Your task to perform on an android device: turn on sleep mode Image 0: 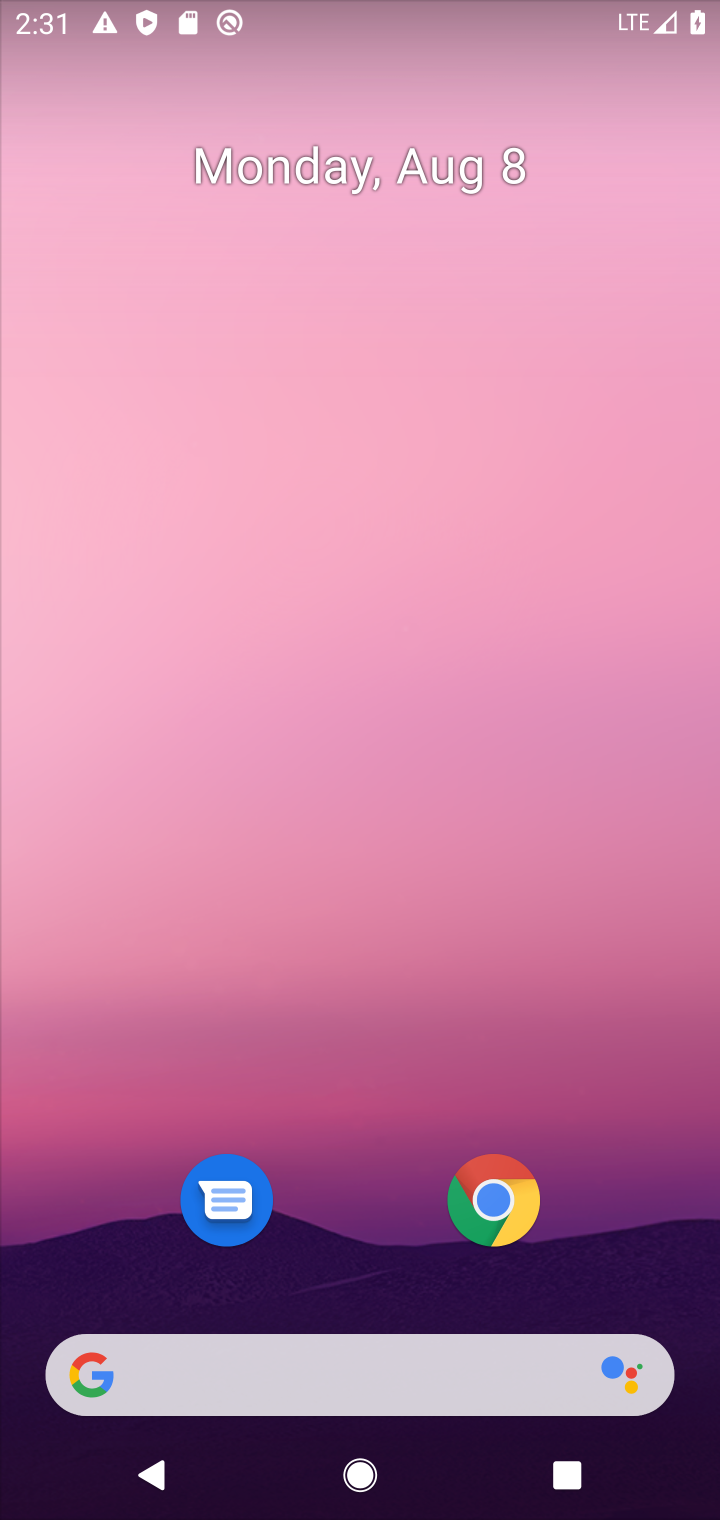
Step 0: drag from (389, 931) to (498, 241)
Your task to perform on an android device: turn on sleep mode Image 1: 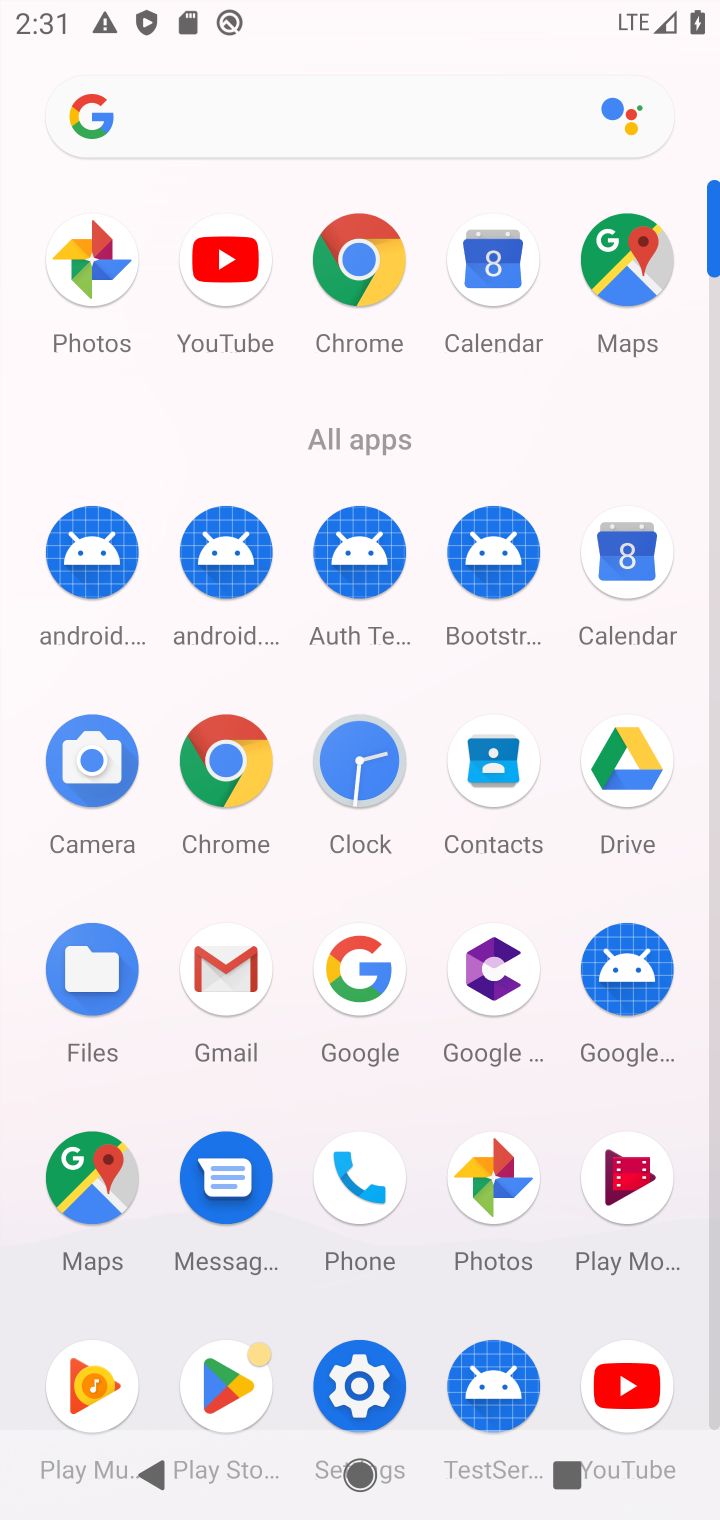
Step 1: click (367, 1348)
Your task to perform on an android device: turn on sleep mode Image 2: 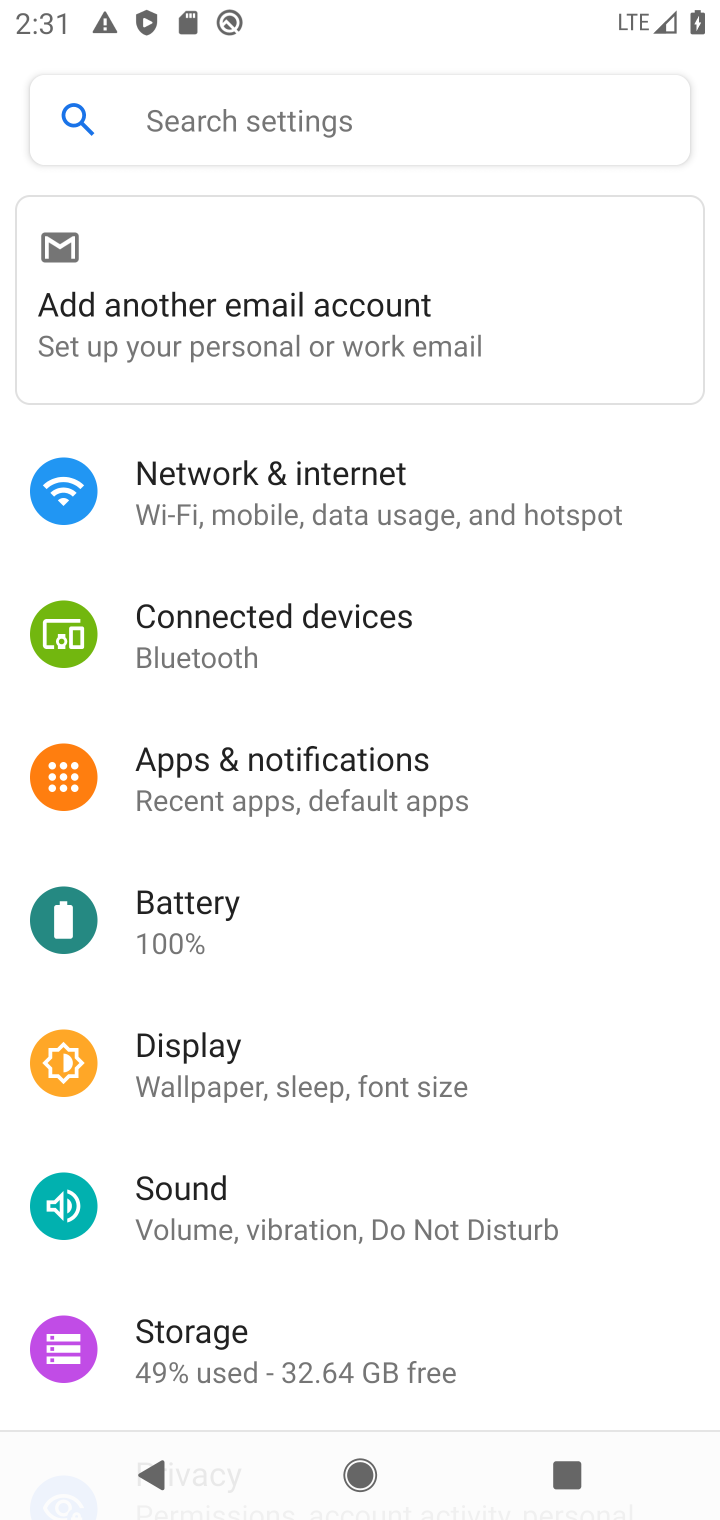
Step 2: click (288, 100)
Your task to perform on an android device: turn on sleep mode Image 3: 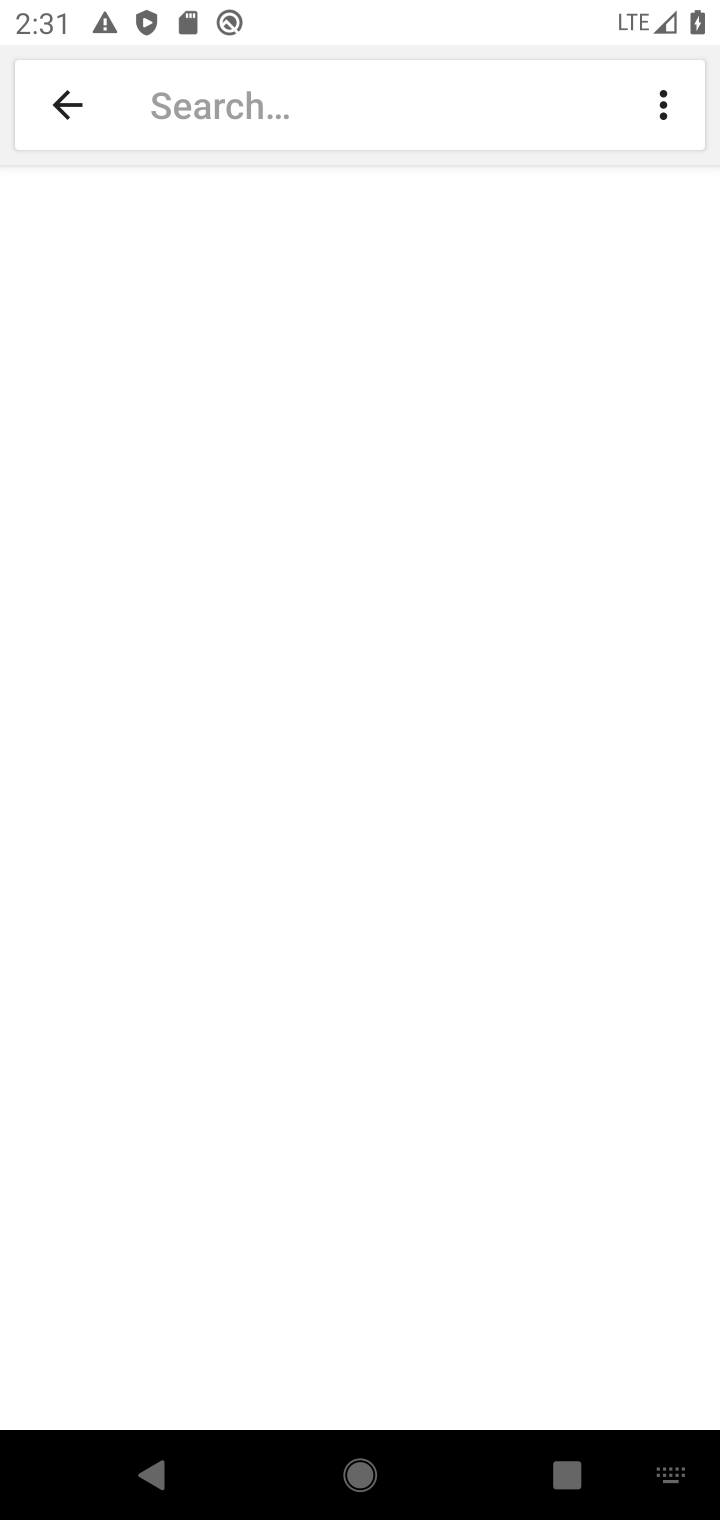
Step 3: type "sleep mode"
Your task to perform on an android device: turn on sleep mode Image 4: 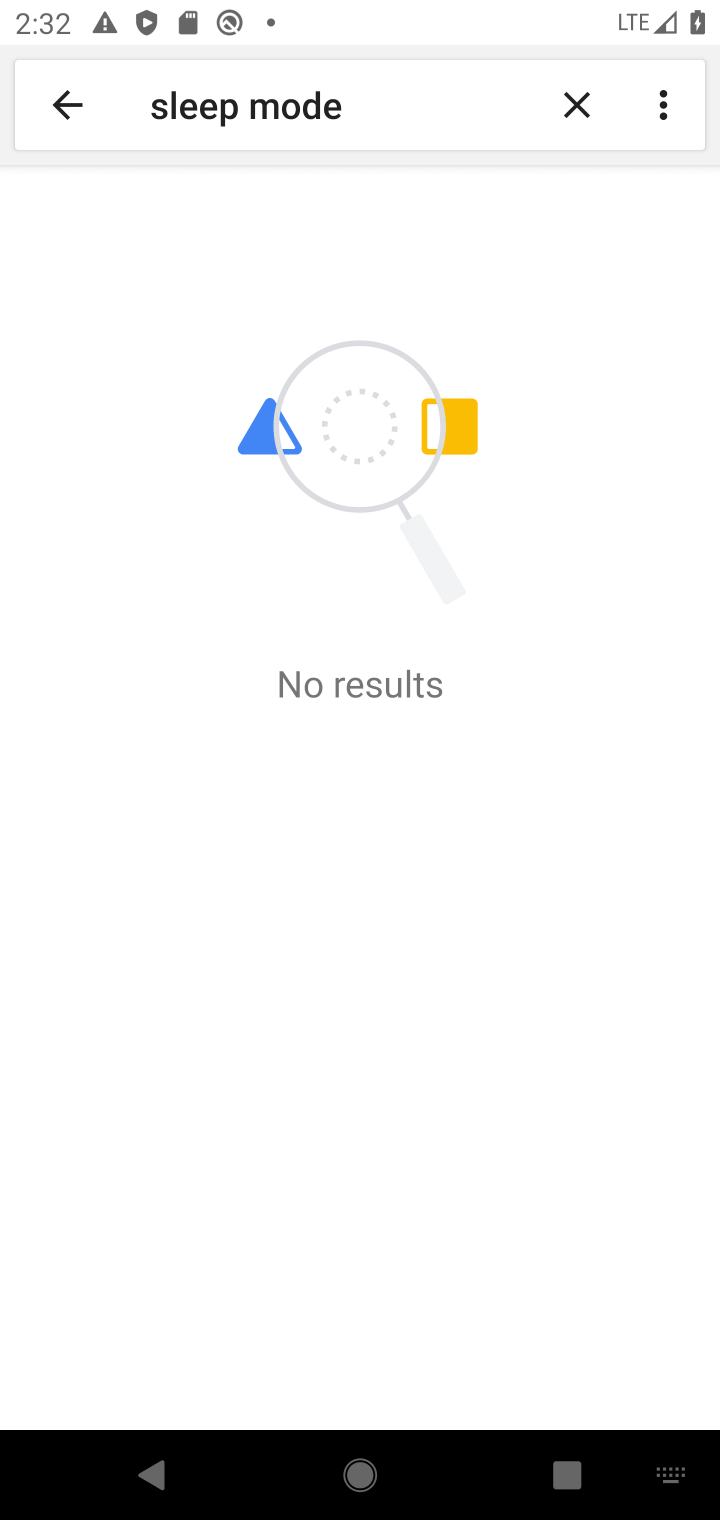
Step 4: task complete